Your task to perform on an android device: open chrome and create a bookmark for the current page Image 0: 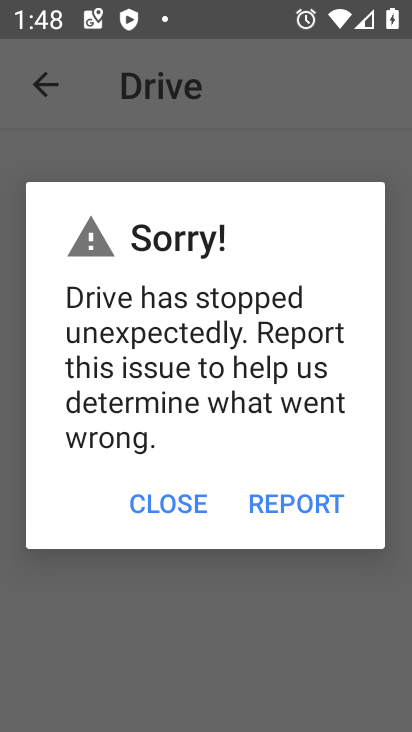
Step 0: press home button
Your task to perform on an android device: open chrome and create a bookmark for the current page Image 1: 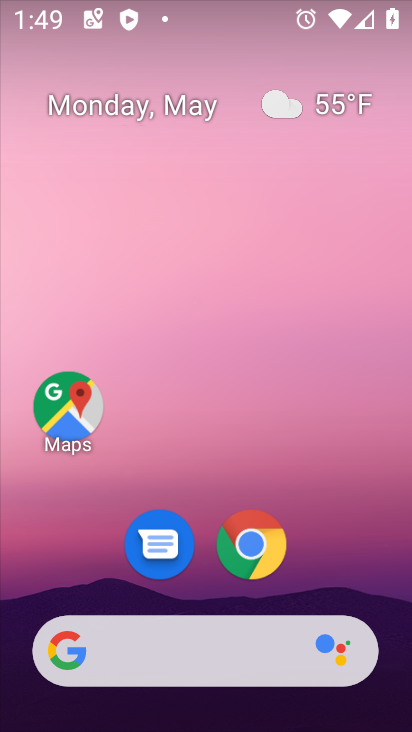
Step 1: click (253, 545)
Your task to perform on an android device: open chrome and create a bookmark for the current page Image 2: 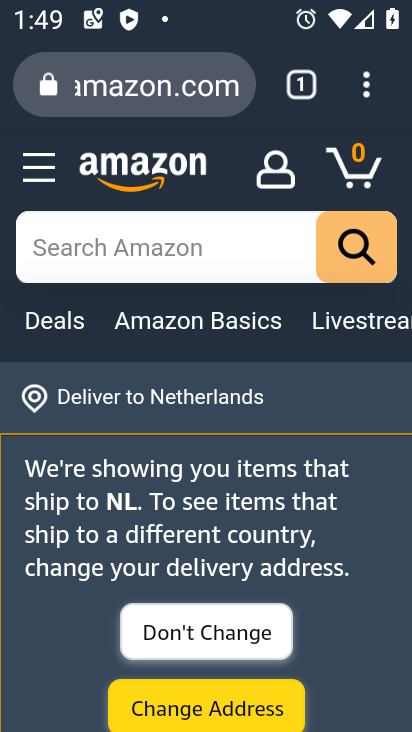
Step 2: click (363, 95)
Your task to perform on an android device: open chrome and create a bookmark for the current page Image 3: 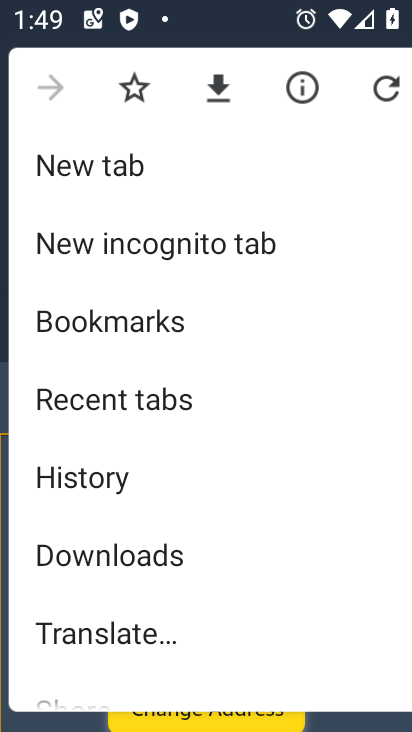
Step 3: click (135, 88)
Your task to perform on an android device: open chrome and create a bookmark for the current page Image 4: 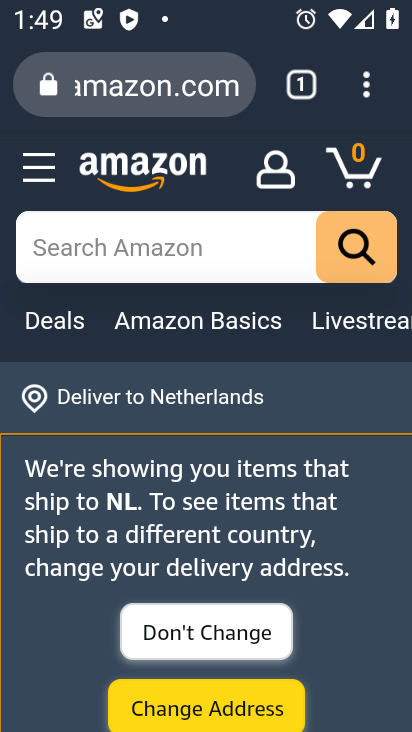
Step 4: task complete